Your task to perform on an android device: Go to Google maps Image 0: 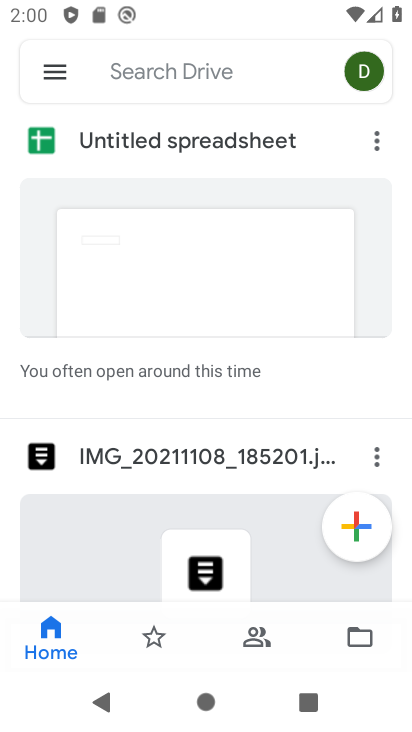
Step 0: press home button
Your task to perform on an android device: Go to Google maps Image 1: 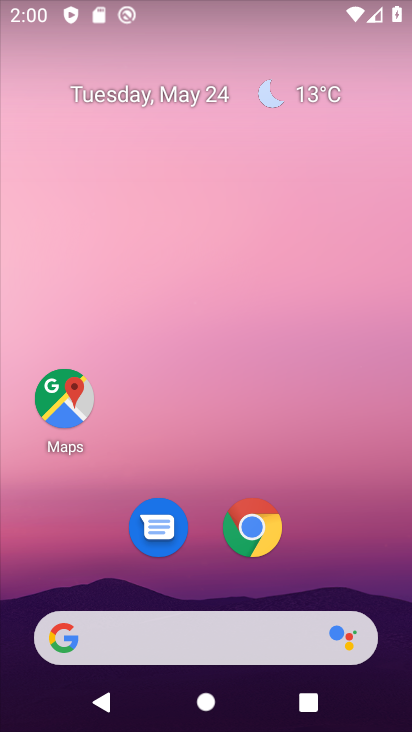
Step 1: drag from (308, 580) to (300, 151)
Your task to perform on an android device: Go to Google maps Image 2: 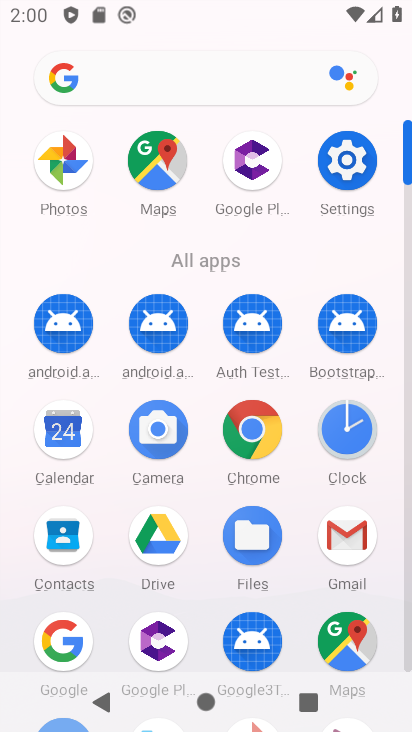
Step 2: click (335, 634)
Your task to perform on an android device: Go to Google maps Image 3: 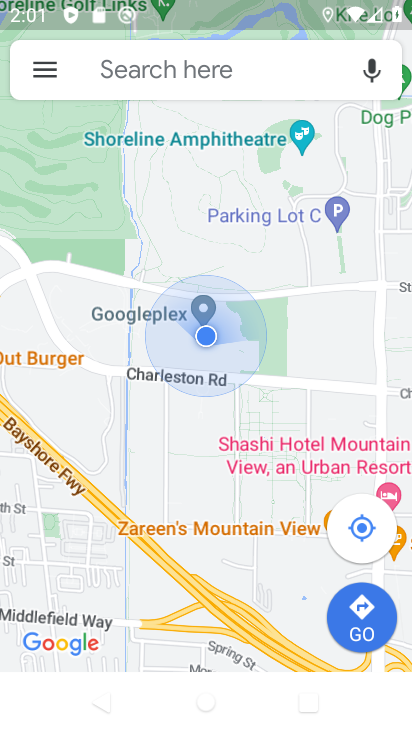
Step 3: task complete